Your task to perform on an android device: Open sound settings Image 0: 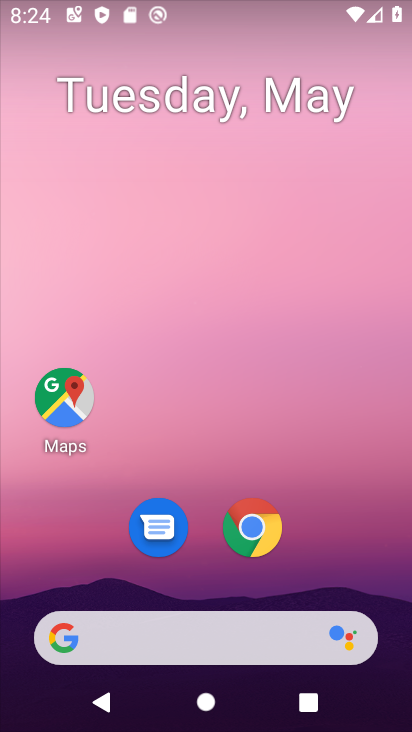
Step 0: drag from (63, 562) to (265, 62)
Your task to perform on an android device: Open sound settings Image 1: 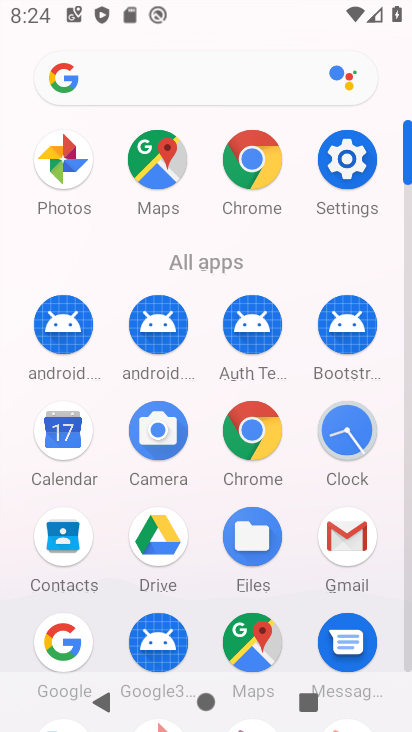
Step 1: drag from (168, 623) to (262, 370)
Your task to perform on an android device: Open sound settings Image 2: 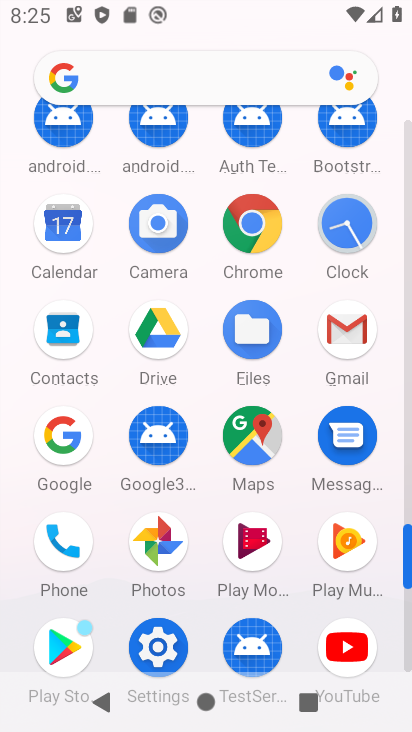
Step 2: click (155, 657)
Your task to perform on an android device: Open sound settings Image 3: 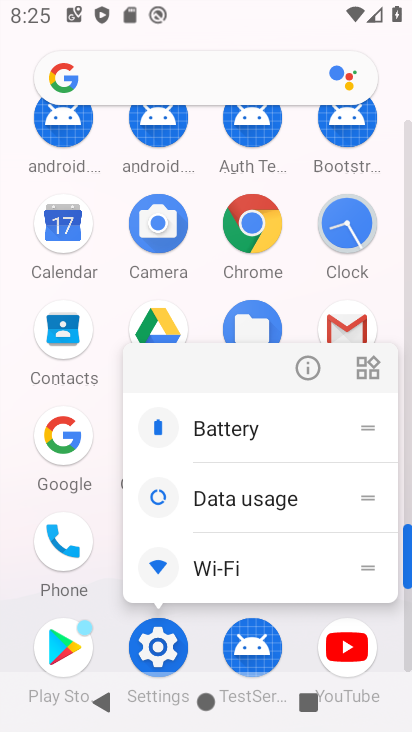
Step 3: click (155, 648)
Your task to perform on an android device: Open sound settings Image 4: 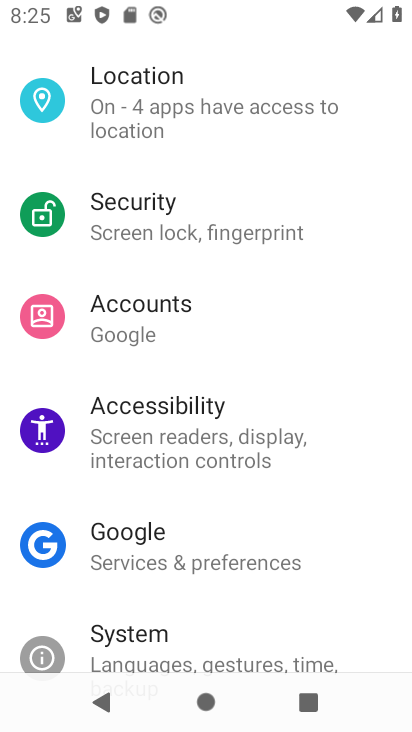
Step 4: drag from (164, 590) to (205, 563)
Your task to perform on an android device: Open sound settings Image 5: 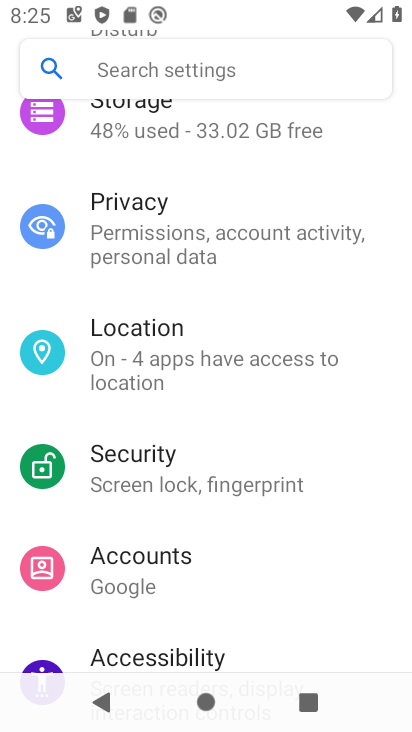
Step 5: drag from (224, 132) to (81, 387)
Your task to perform on an android device: Open sound settings Image 6: 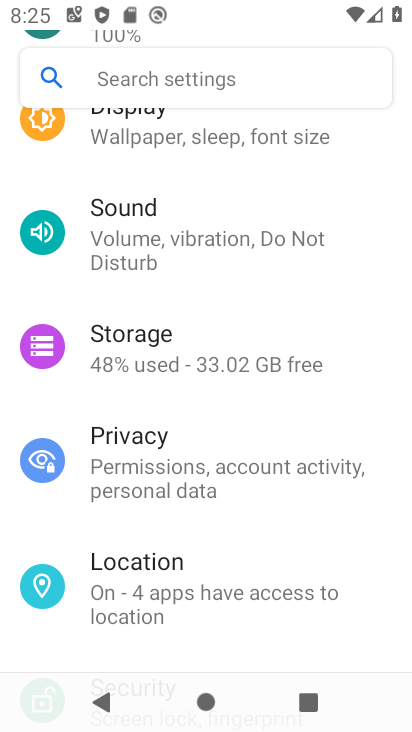
Step 6: click (163, 253)
Your task to perform on an android device: Open sound settings Image 7: 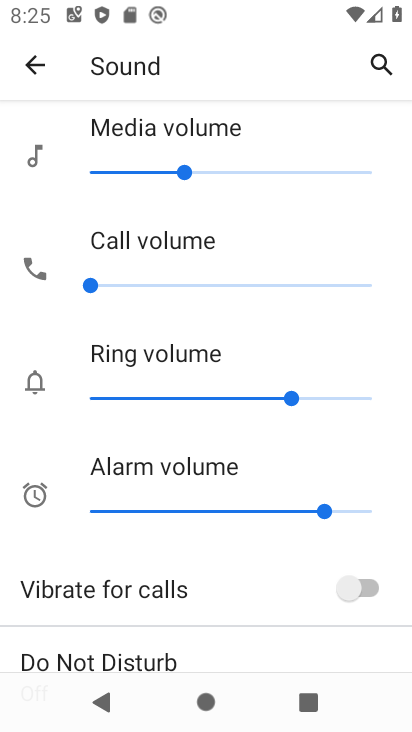
Step 7: task complete